Your task to perform on an android device: open app "Google Chrome" (install if not already installed) Image 0: 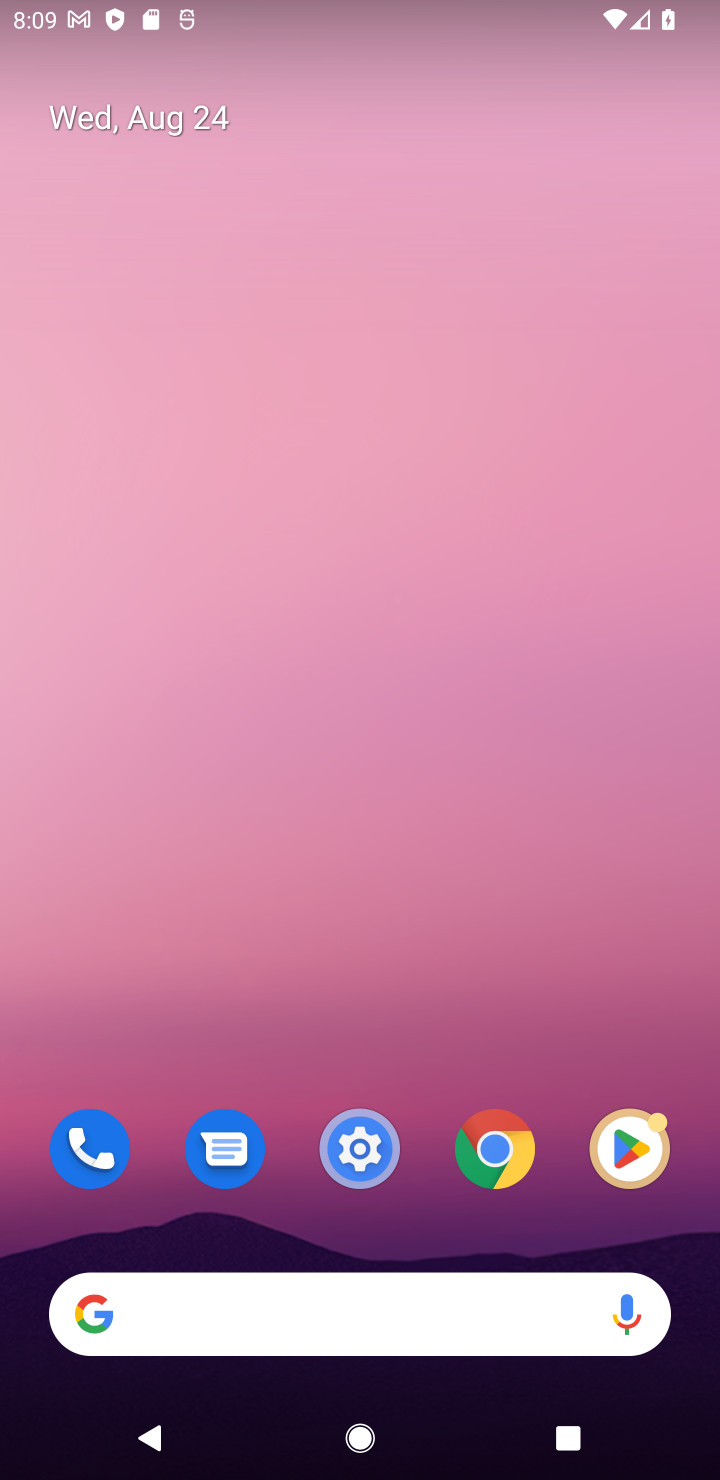
Step 0: click (605, 1133)
Your task to perform on an android device: open app "Google Chrome" (install if not already installed) Image 1: 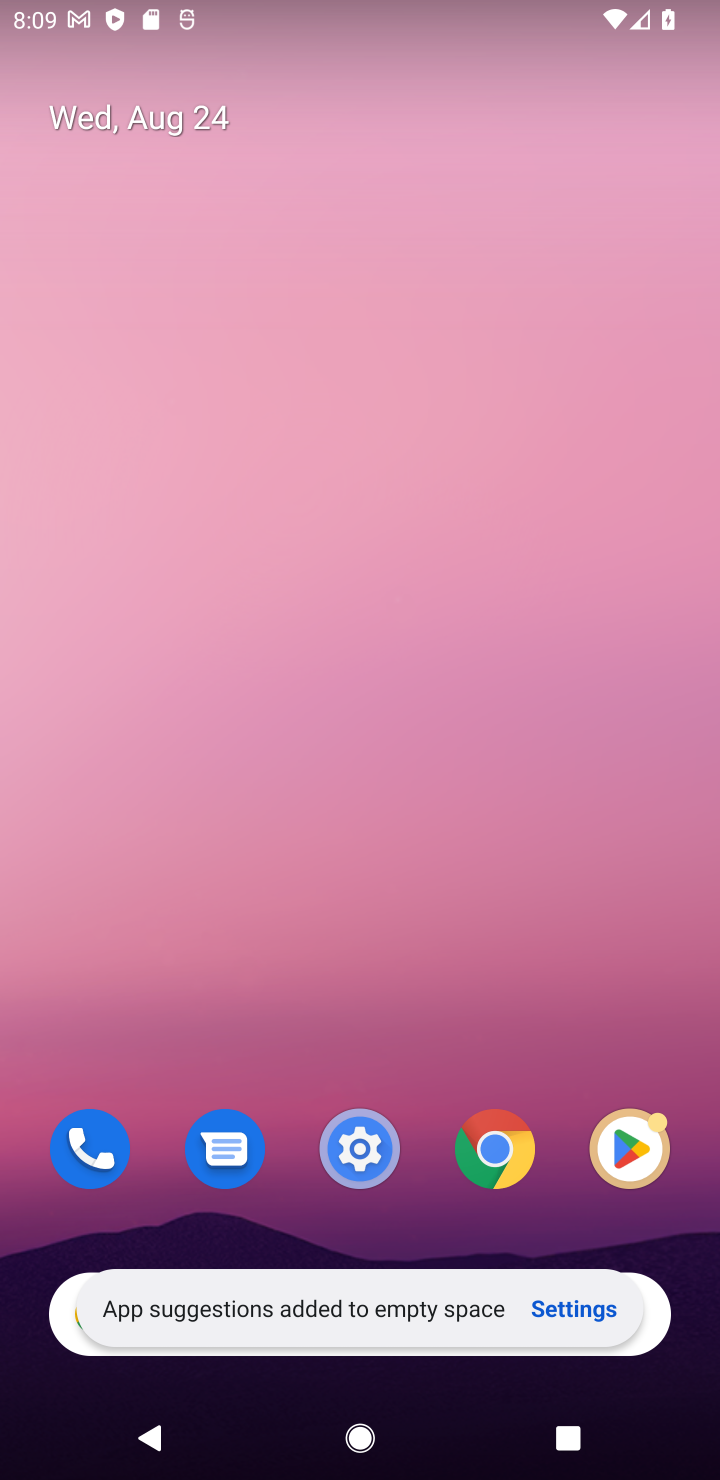
Step 1: click (607, 1142)
Your task to perform on an android device: open app "Google Chrome" (install if not already installed) Image 2: 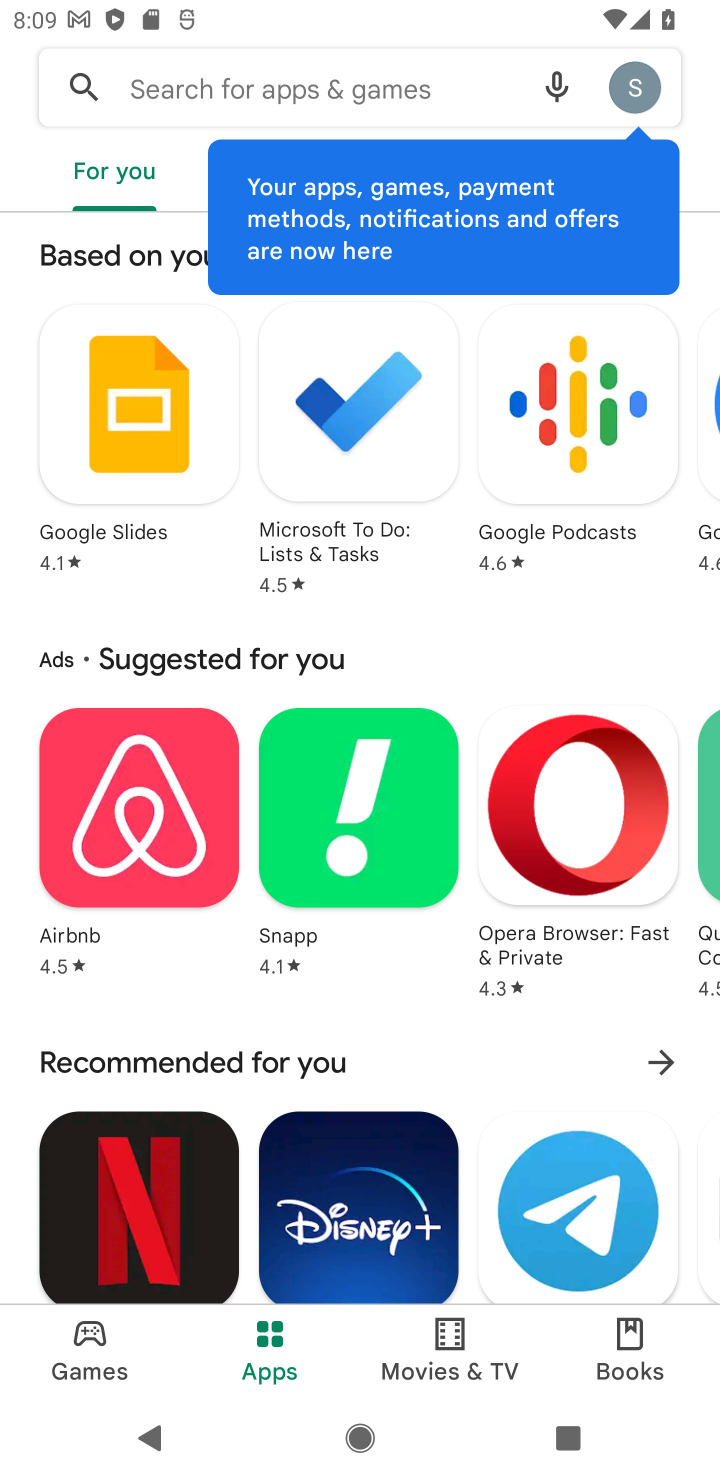
Step 2: click (80, 77)
Your task to perform on an android device: open app "Google Chrome" (install if not already installed) Image 3: 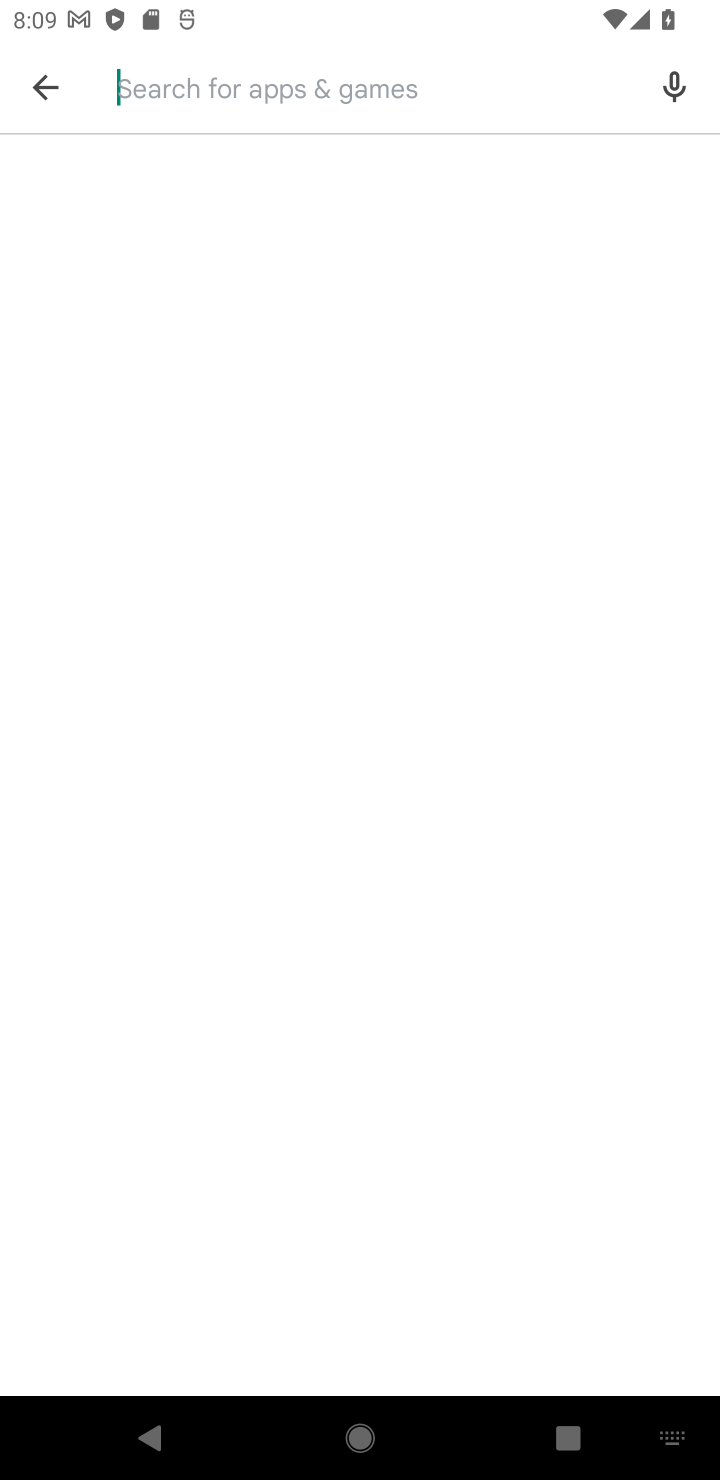
Step 3: type "Google Chrome"
Your task to perform on an android device: open app "Google Chrome" (install if not already installed) Image 4: 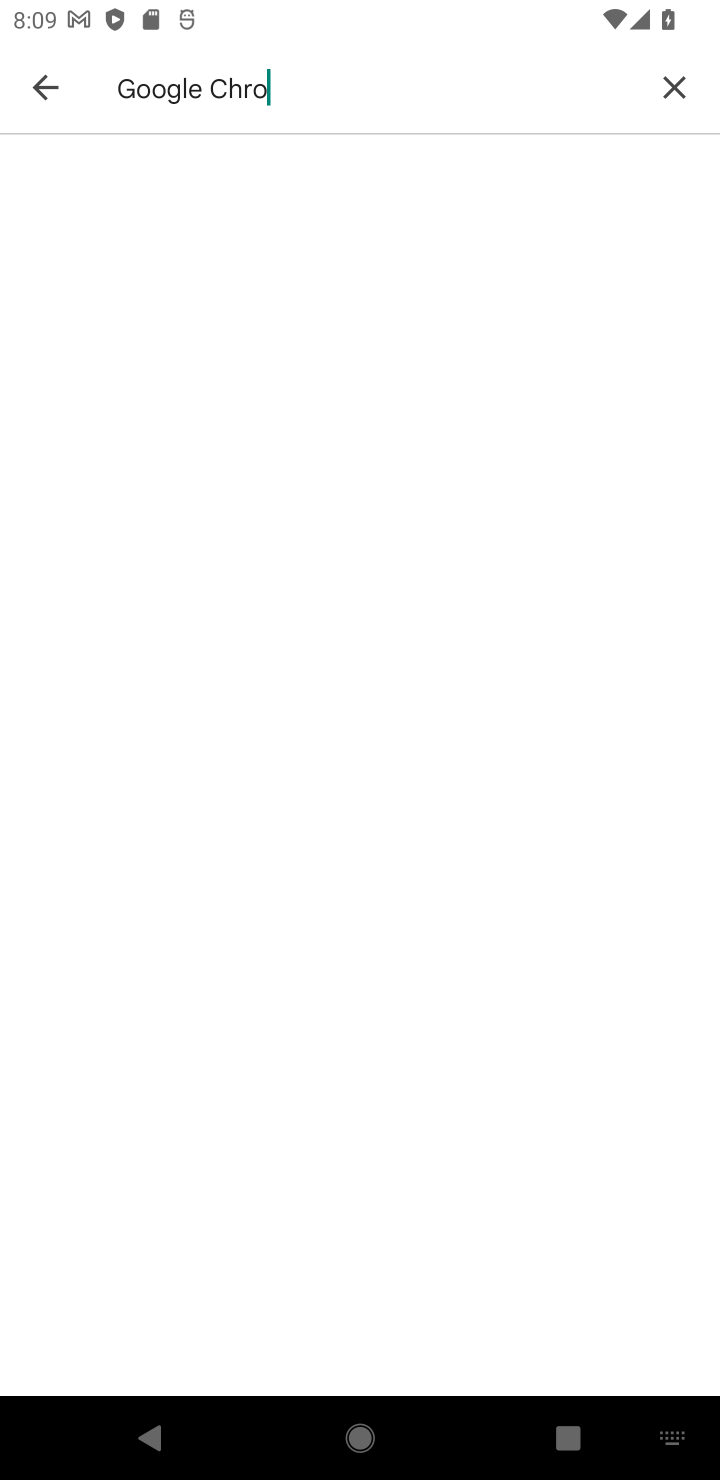
Step 4: type ""
Your task to perform on an android device: open app "Google Chrome" (install if not already installed) Image 5: 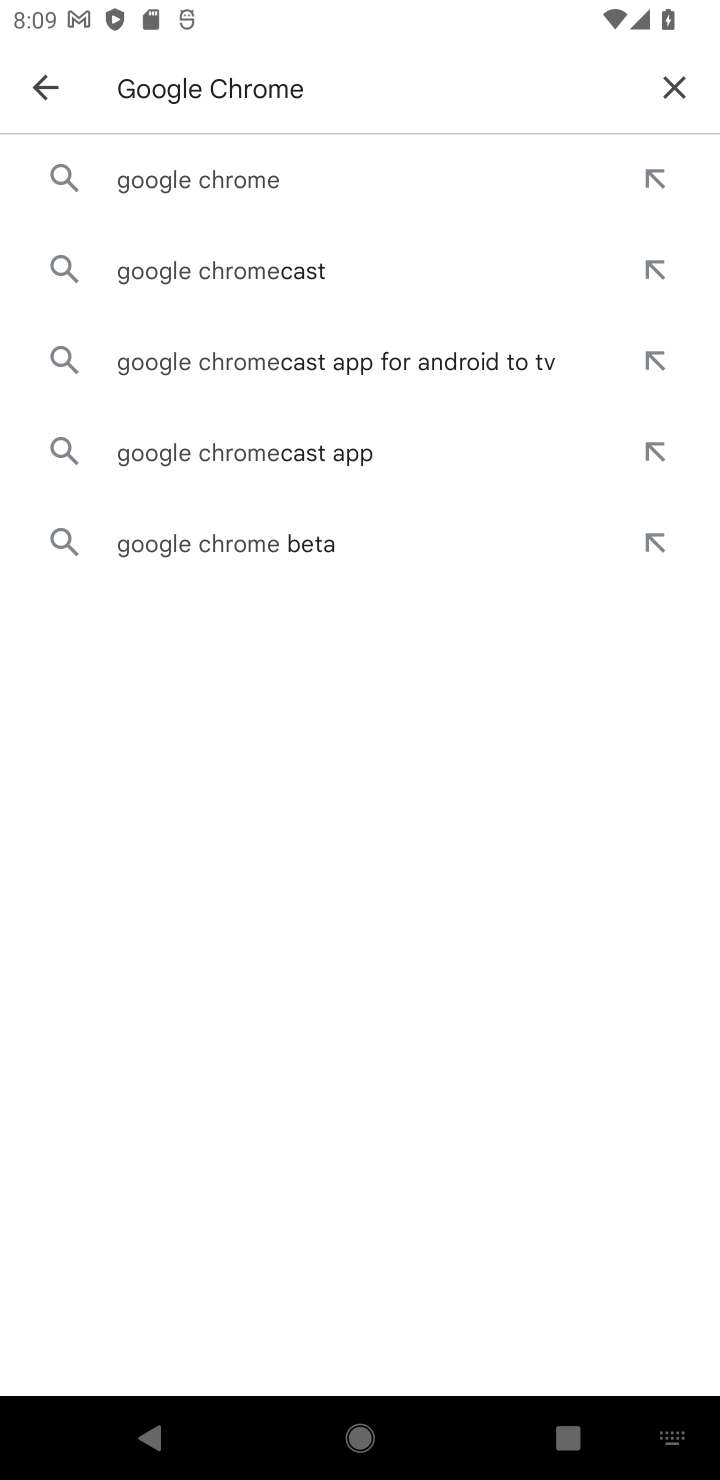
Step 5: click (310, 160)
Your task to perform on an android device: open app "Google Chrome" (install if not already installed) Image 6: 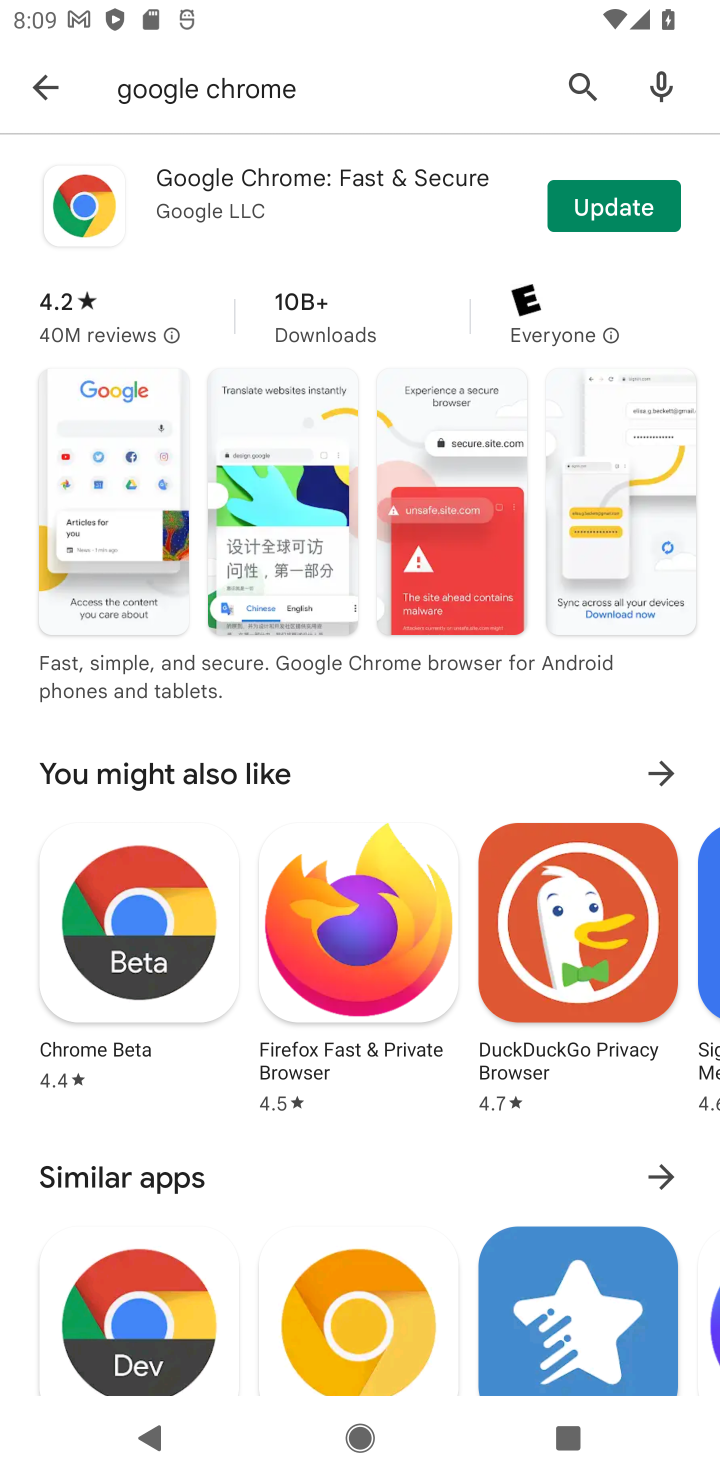
Step 6: click (459, 215)
Your task to perform on an android device: open app "Google Chrome" (install if not already installed) Image 7: 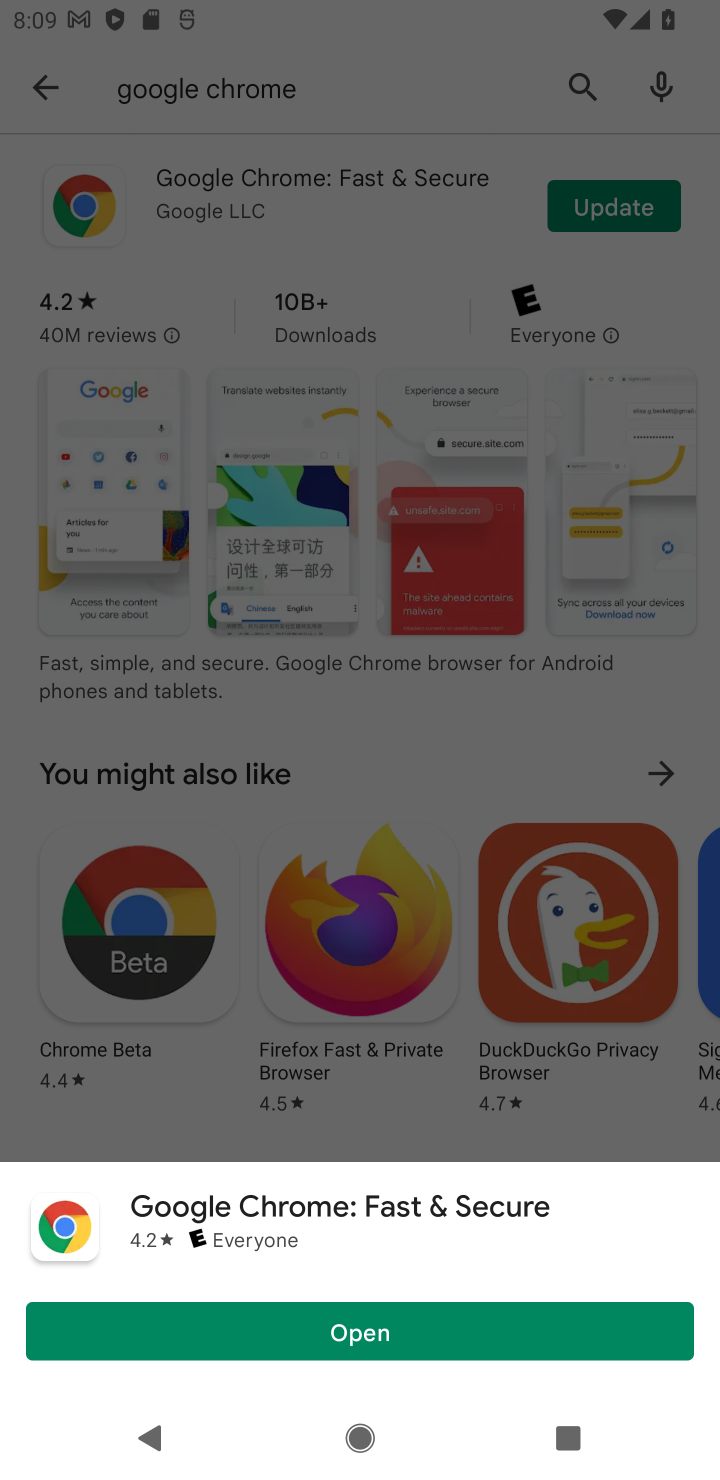
Step 7: click (426, 1337)
Your task to perform on an android device: open app "Google Chrome" (install if not already installed) Image 8: 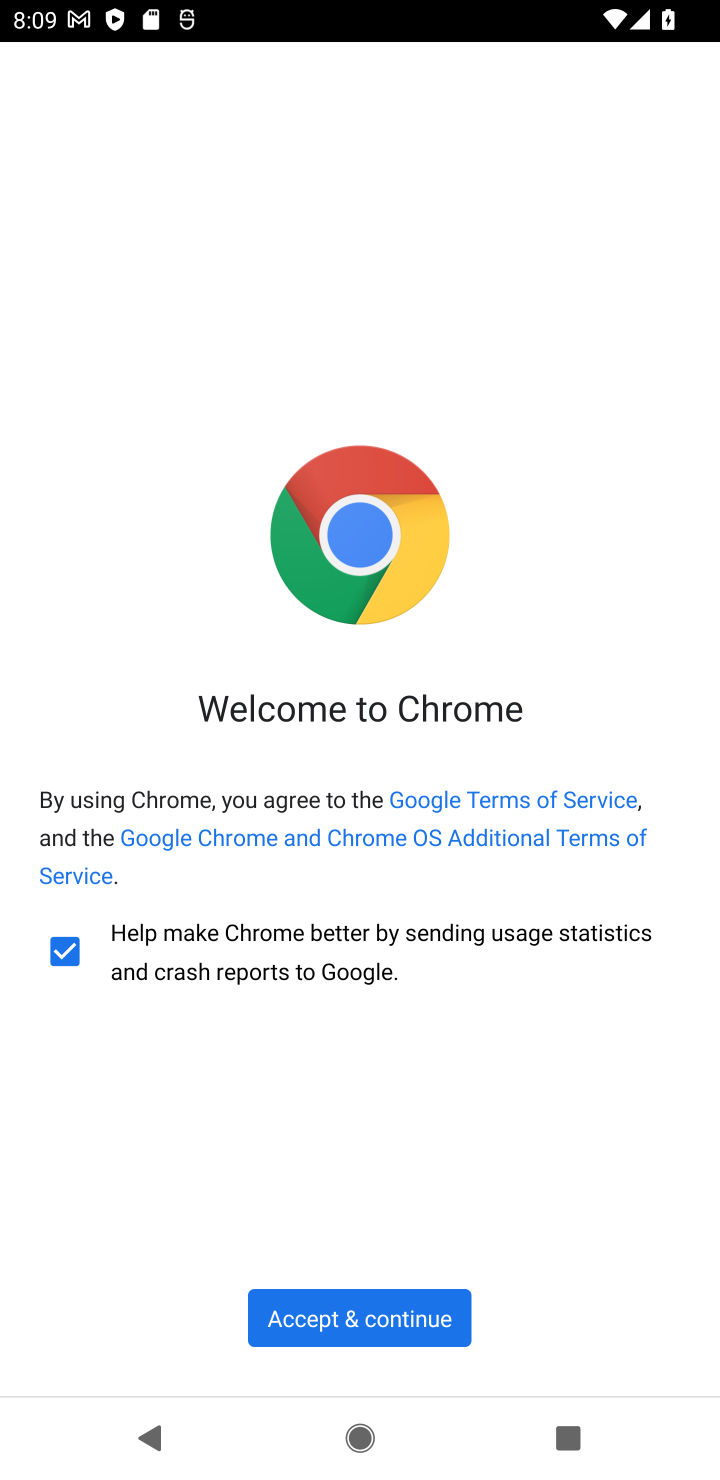
Step 8: task complete